Your task to perform on an android device: check android version Image 0: 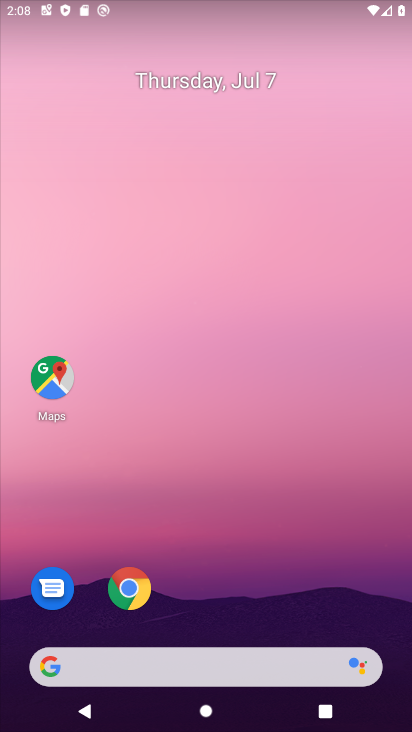
Step 0: drag from (249, 566) to (322, 39)
Your task to perform on an android device: check android version Image 1: 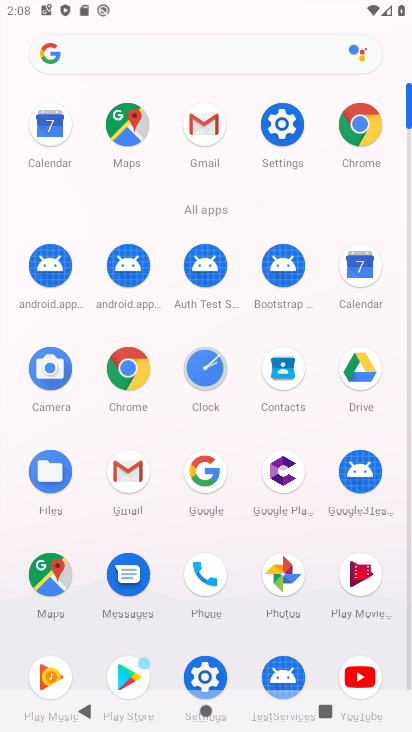
Step 1: click (282, 117)
Your task to perform on an android device: check android version Image 2: 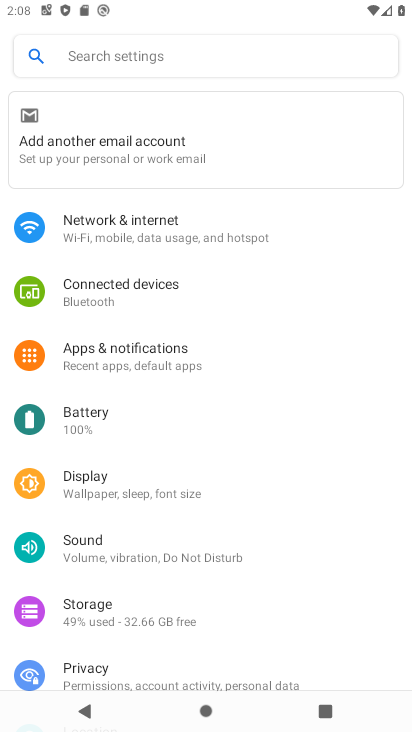
Step 2: drag from (192, 621) to (273, 72)
Your task to perform on an android device: check android version Image 3: 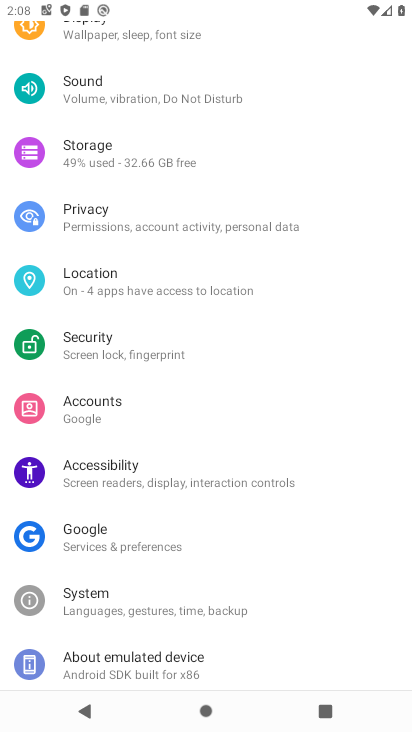
Step 3: drag from (146, 560) to (237, 24)
Your task to perform on an android device: check android version Image 4: 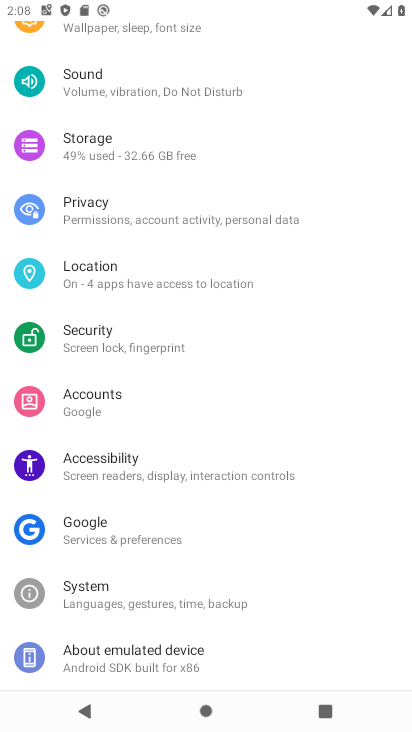
Step 4: click (152, 661)
Your task to perform on an android device: check android version Image 5: 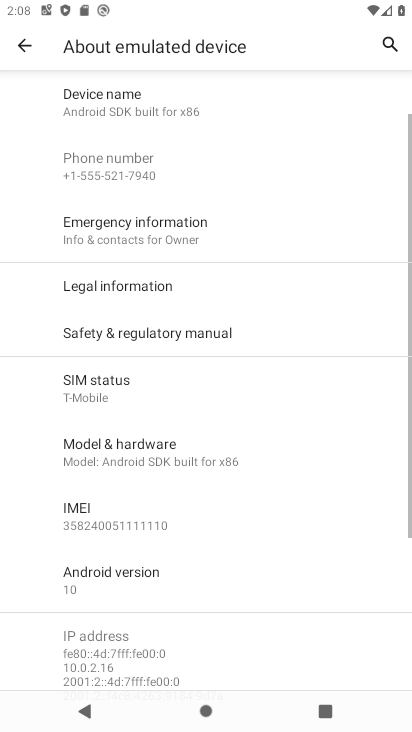
Step 5: click (123, 587)
Your task to perform on an android device: check android version Image 6: 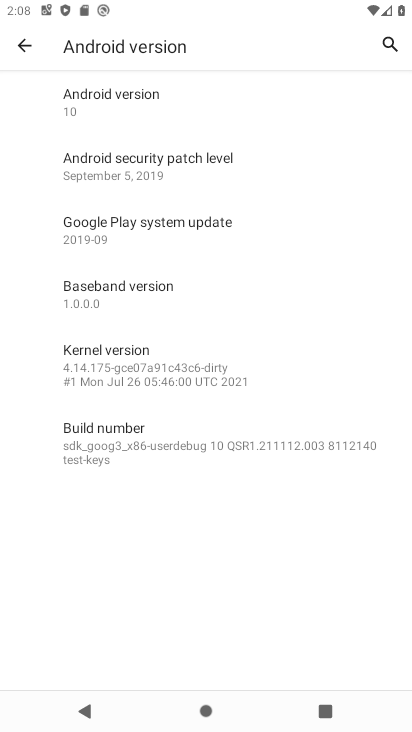
Step 6: click (109, 102)
Your task to perform on an android device: check android version Image 7: 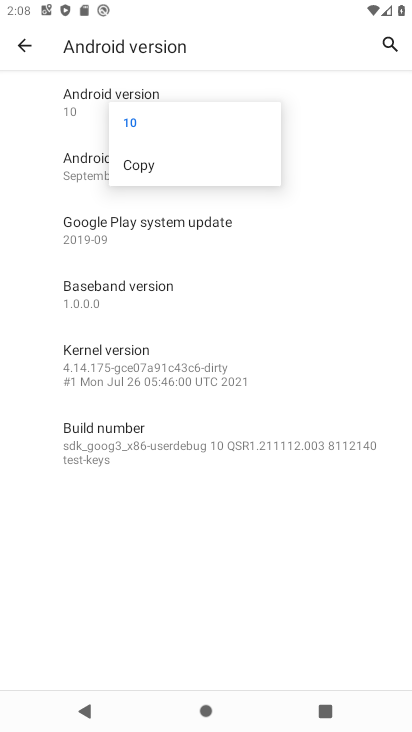
Step 7: click (81, 93)
Your task to perform on an android device: check android version Image 8: 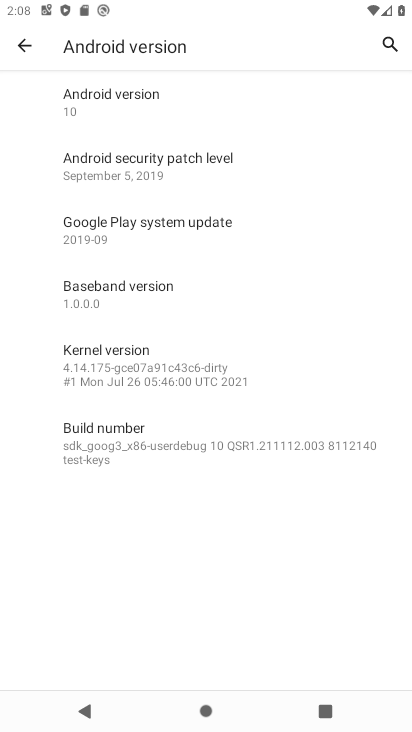
Step 8: task complete